Your task to perform on an android device: delete location history Image 0: 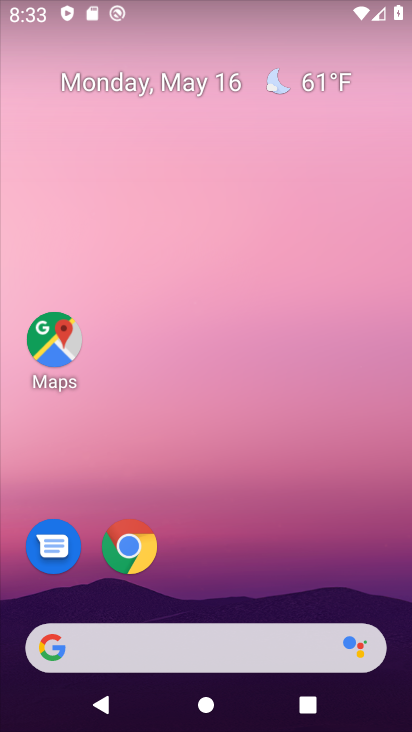
Step 0: drag from (332, 527) to (290, 205)
Your task to perform on an android device: delete location history Image 1: 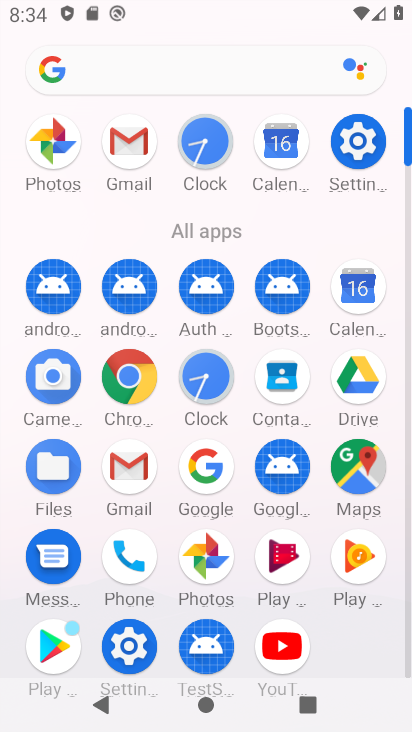
Step 1: click (362, 483)
Your task to perform on an android device: delete location history Image 2: 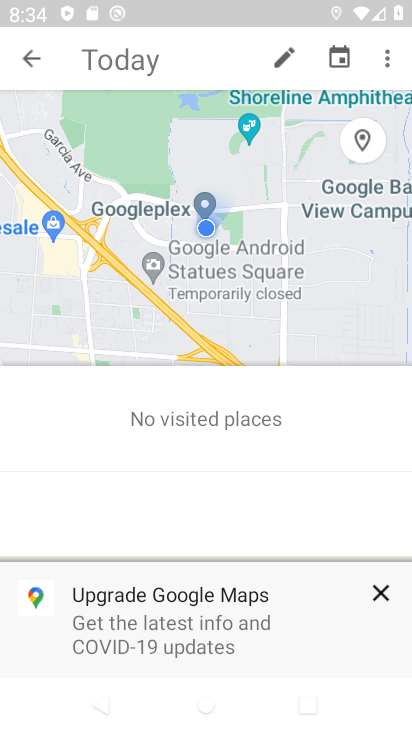
Step 2: click (389, 64)
Your task to perform on an android device: delete location history Image 3: 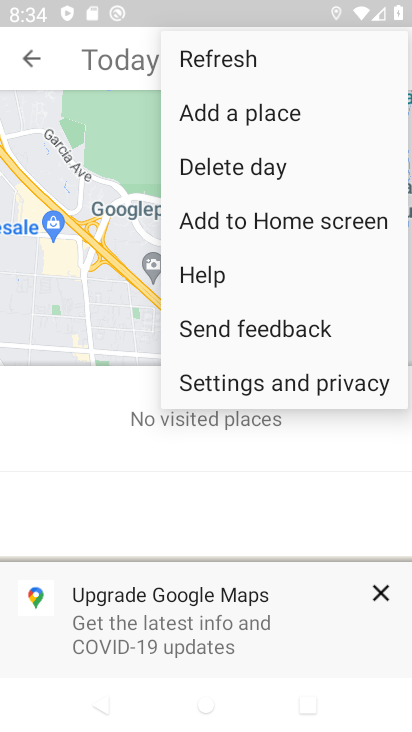
Step 3: click (267, 186)
Your task to perform on an android device: delete location history Image 4: 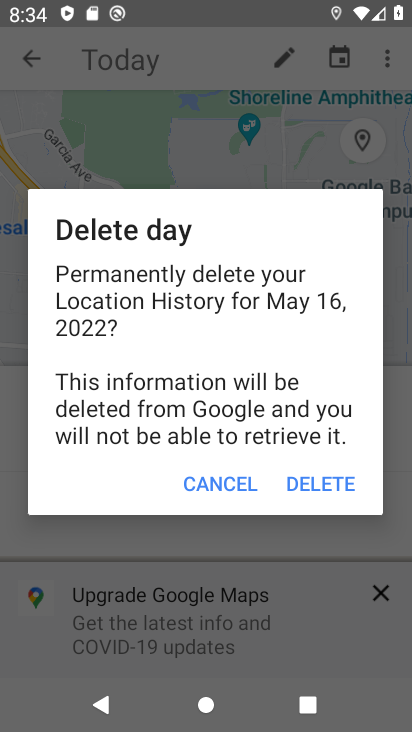
Step 4: click (342, 488)
Your task to perform on an android device: delete location history Image 5: 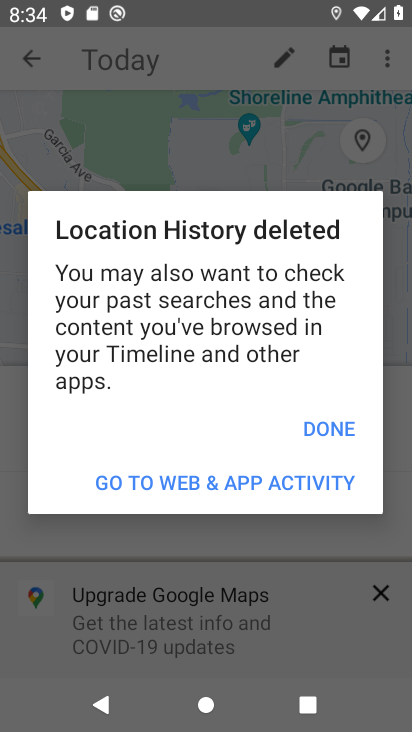
Step 5: click (321, 430)
Your task to perform on an android device: delete location history Image 6: 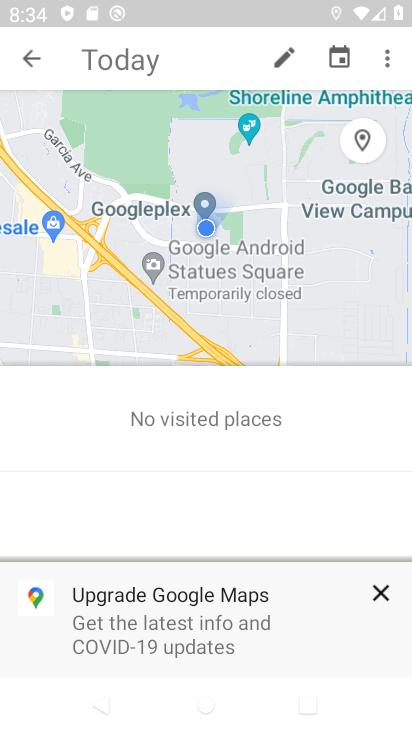
Step 6: task complete